Your task to perform on an android device: Go to settings Image 0: 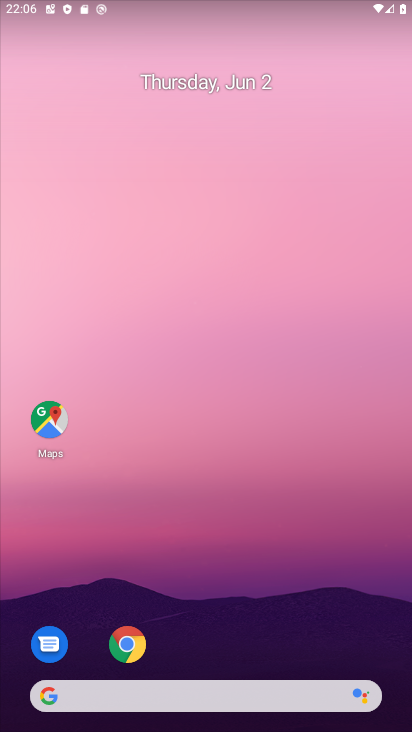
Step 0: drag from (175, 601) to (218, 258)
Your task to perform on an android device: Go to settings Image 1: 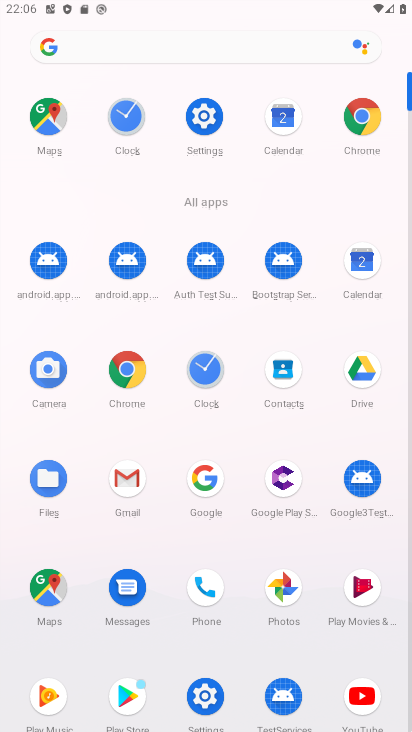
Step 1: click (192, 132)
Your task to perform on an android device: Go to settings Image 2: 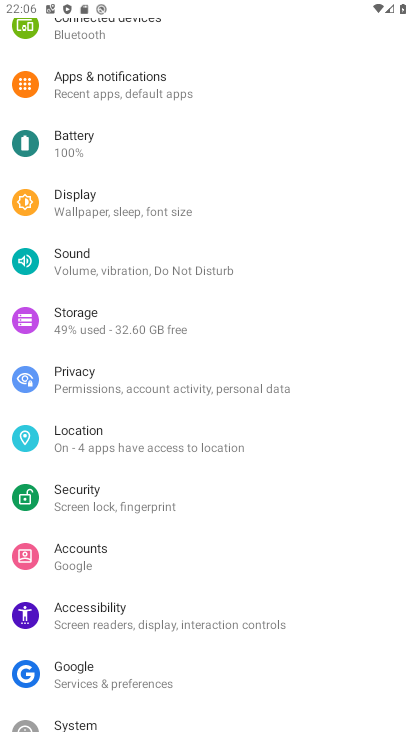
Step 2: task complete